Your task to perform on an android device: Turn off the flashlight Image 0: 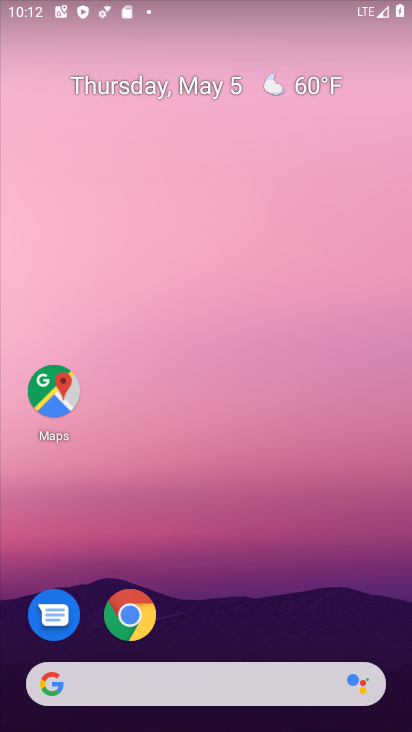
Step 0: drag from (249, 490) to (207, 108)
Your task to perform on an android device: Turn off the flashlight Image 1: 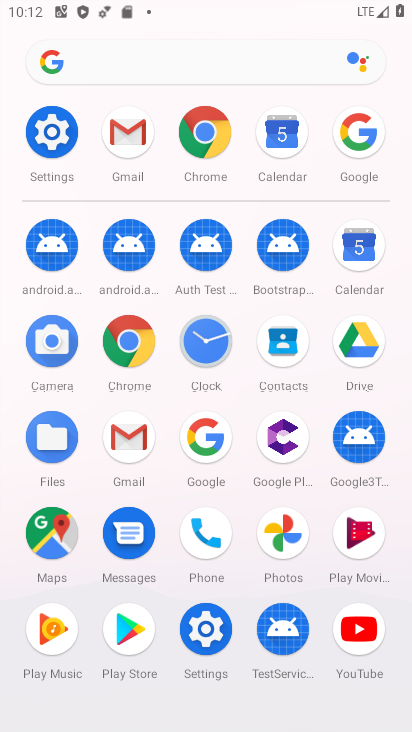
Step 1: click (51, 133)
Your task to perform on an android device: Turn off the flashlight Image 2: 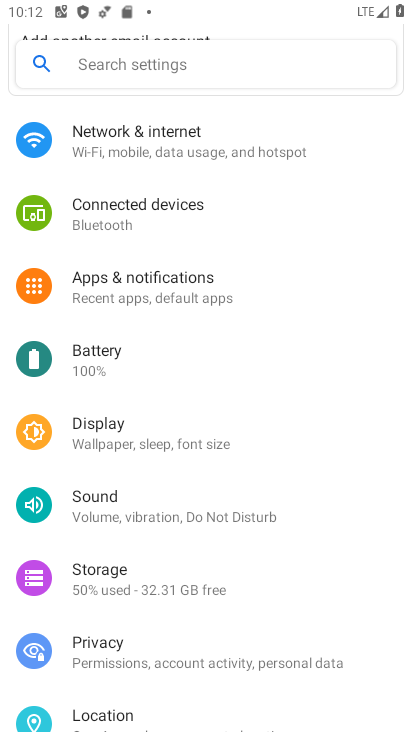
Step 2: click (188, 69)
Your task to perform on an android device: Turn off the flashlight Image 3: 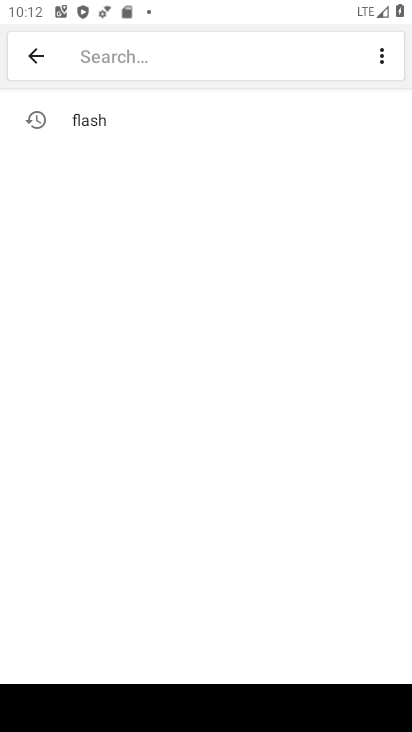
Step 3: type "flash"
Your task to perform on an android device: Turn off the flashlight Image 4: 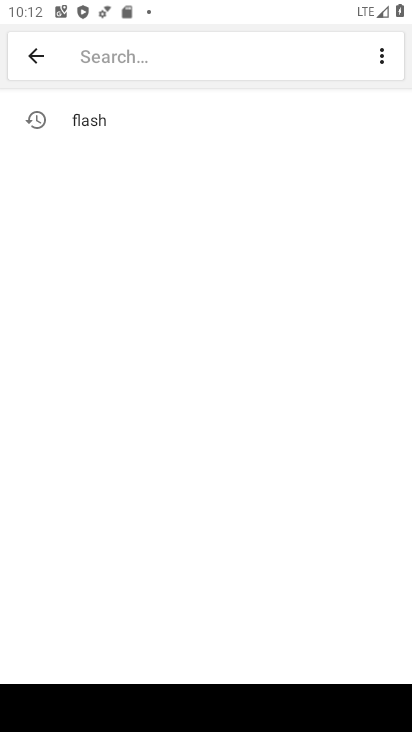
Step 4: click (150, 122)
Your task to perform on an android device: Turn off the flashlight Image 5: 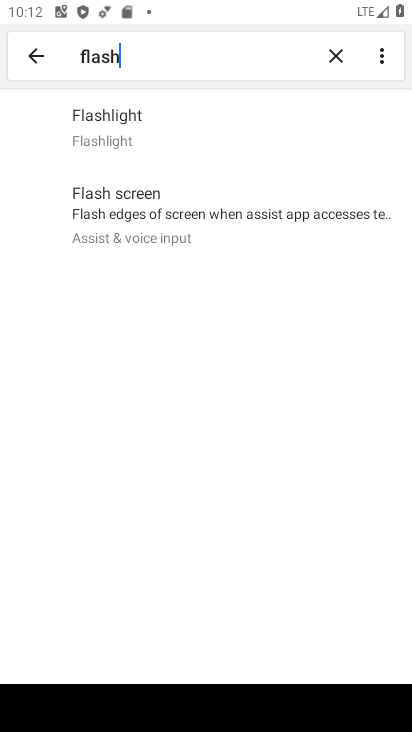
Step 5: click (150, 122)
Your task to perform on an android device: Turn off the flashlight Image 6: 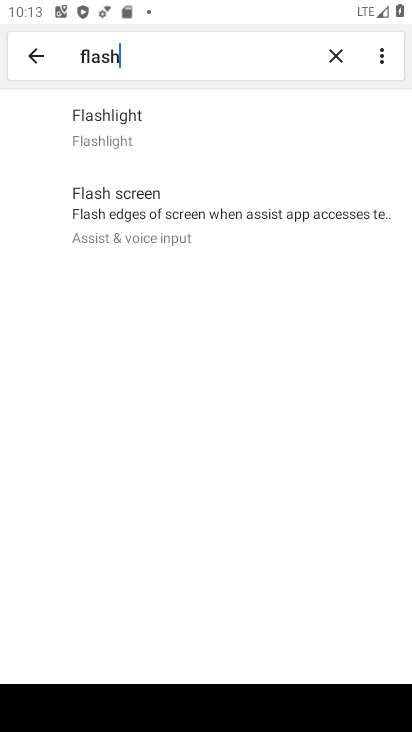
Step 6: task complete